Your task to perform on an android device: turn off data saver in the chrome app Image 0: 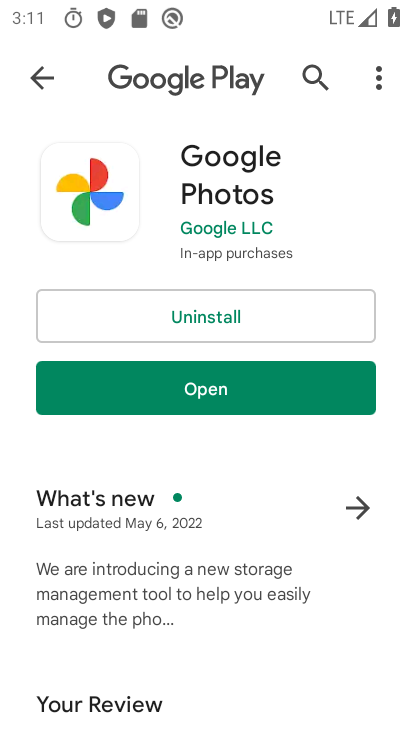
Step 0: press home button
Your task to perform on an android device: turn off data saver in the chrome app Image 1: 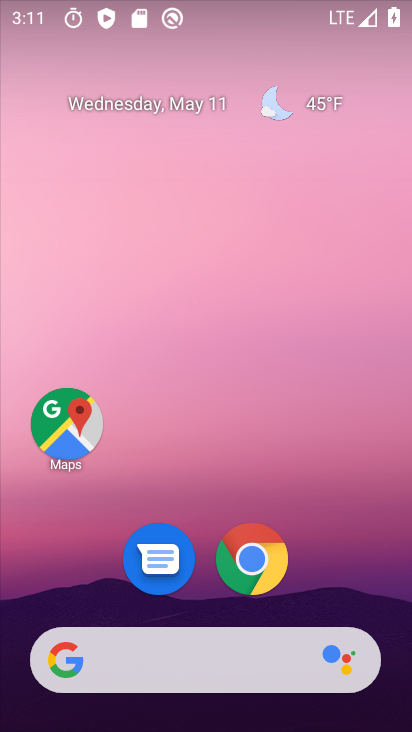
Step 1: click (261, 569)
Your task to perform on an android device: turn off data saver in the chrome app Image 2: 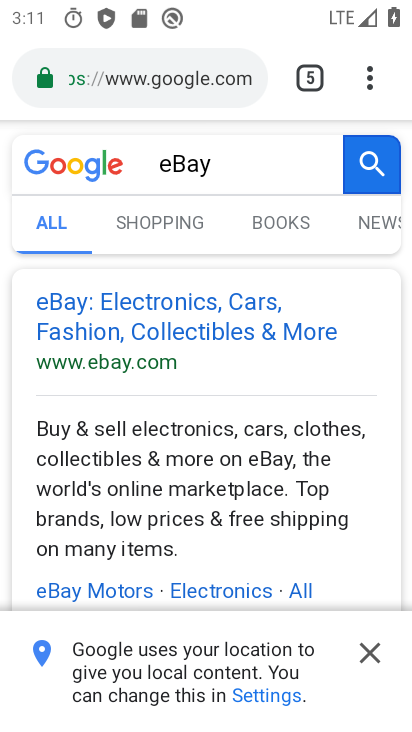
Step 2: click (370, 72)
Your task to perform on an android device: turn off data saver in the chrome app Image 3: 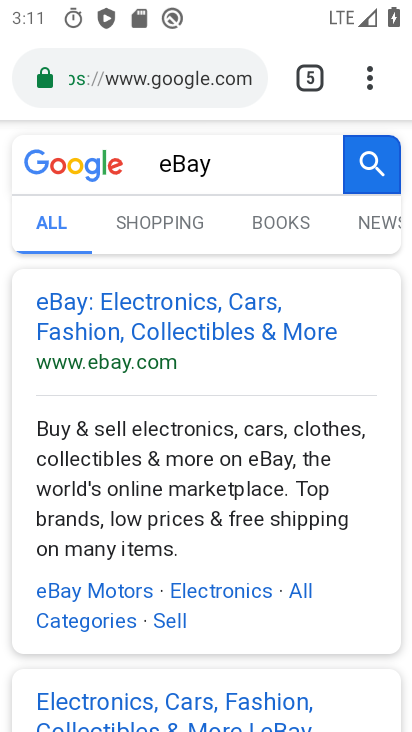
Step 3: click (382, 73)
Your task to perform on an android device: turn off data saver in the chrome app Image 4: 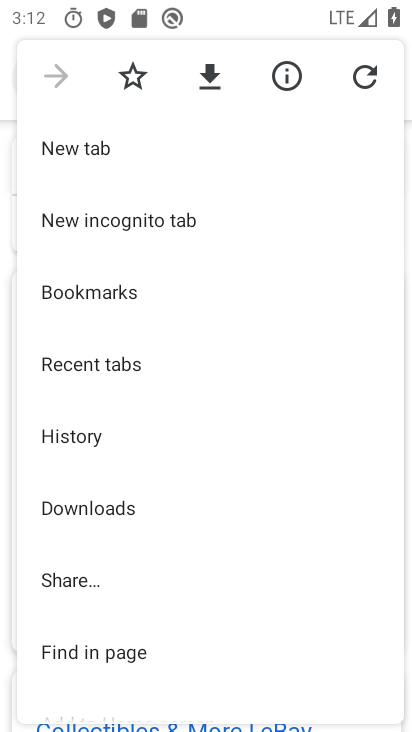
Step 4: drag from (192, 597) to (185, 176)
Your task to perform on an android device: turn off data saver in the chrome app Image 5: 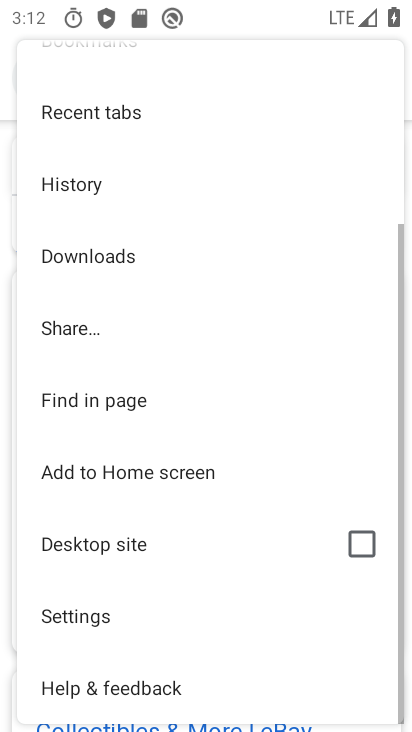
Step 5: click (114, 604)
Your task to perform on an android device: turn off data saver in the chrome app Image 6: 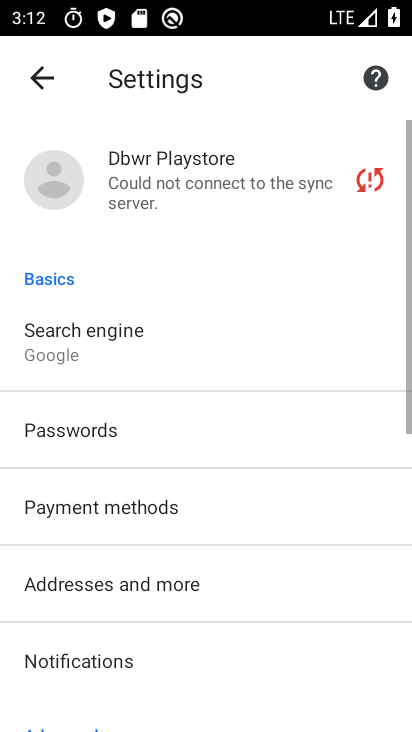
Step 6: drag from (172, 660) to (160, 201)
Your task to perform on an android device: turn off data saver in the chrome app Image 7: 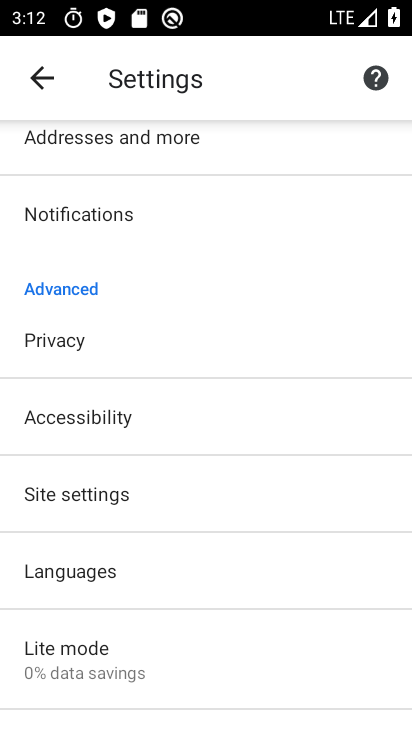
Step 7: click (107, 643)
Your task to perform on an android device: turn off data saver in the chrome app Image 8: 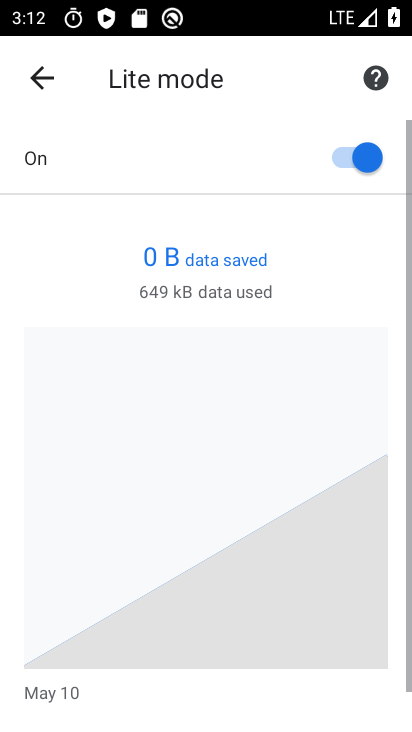
Step 8: click (363, 143)
Your task to perform on an android device: turn off data saver in the chrome app Image 9: 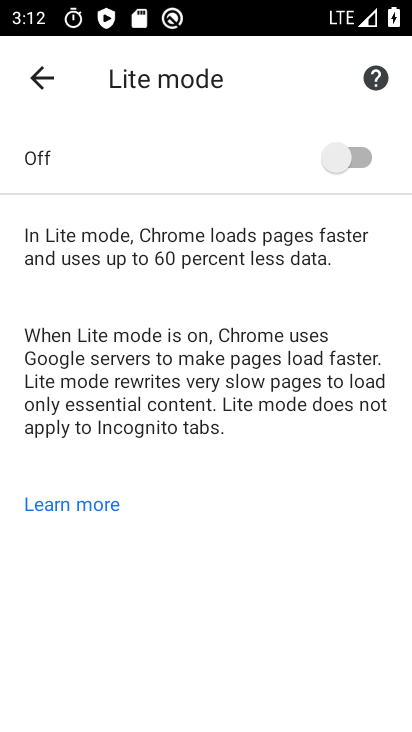
Step 9: task complete